Your task to perform on an android device: Open the calendar app, open the side menu, and click the "Day" option Image 0: 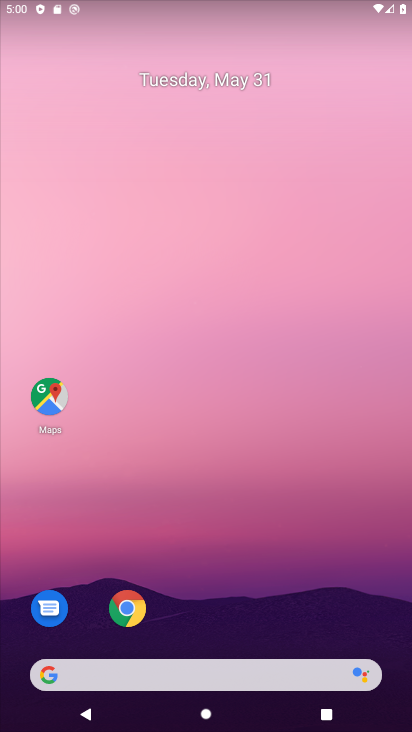
Step 0: drag from (270, 623) to (221, 44)
Your task to perform on an android device: Open the calendar app, open the side menu, and click the "Day" option Image 1: 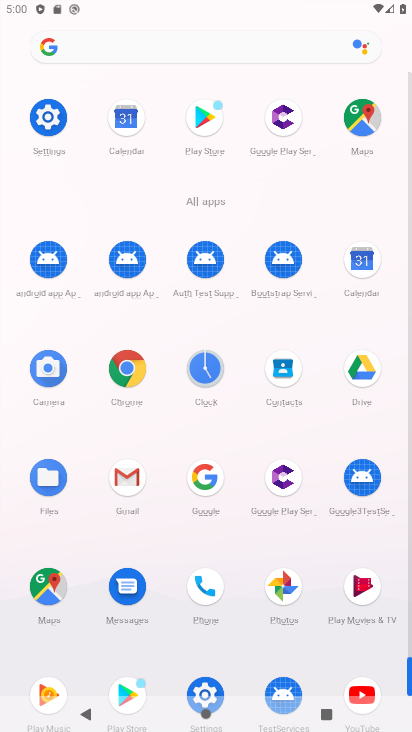
Step 1: click (361, 261)
Your task to perform on an android device: Open the calendar app, open the side menu, and click the "Day" option Image 2: 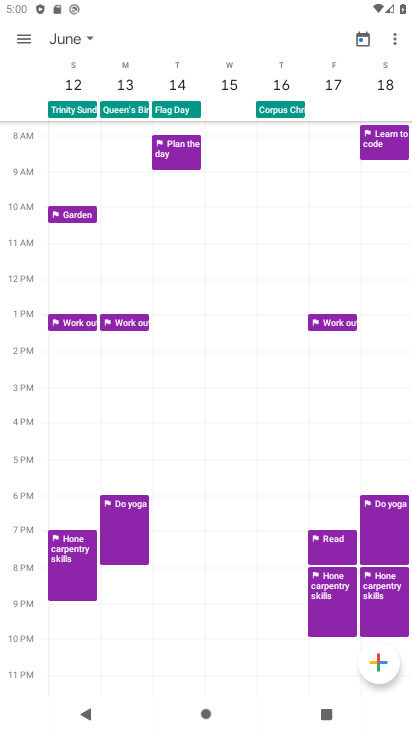
Step 2: click (23, 41)
Your task to perform on an android device: Open the calendar app, open the side menu, and click the "Day" option Image 3: 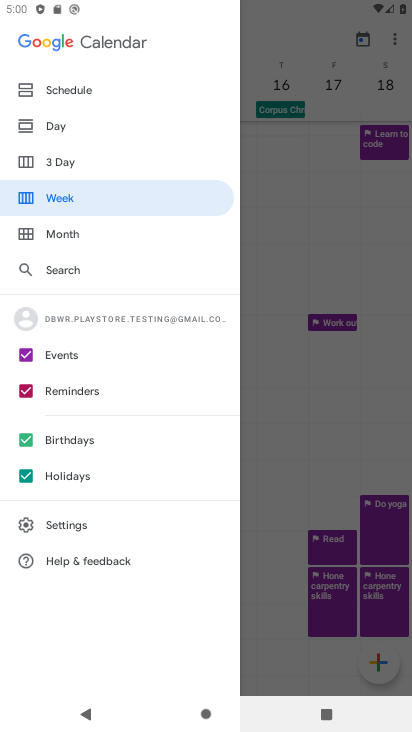
Step 3: click (50, 124)
Your task to perform on an android device: Open the calendar app, open the side menu, and click the "Day" option Image 4: 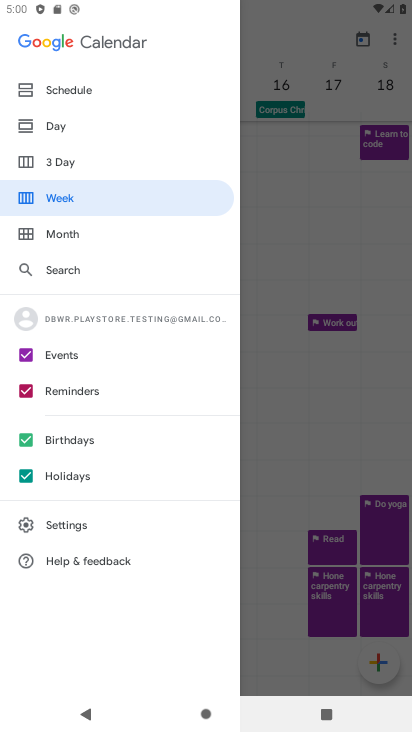
Step 4: click (50, 124)
Your task to perform on an android device: Open the calendar app, open the side menu, and click the "Day" option Image 5: 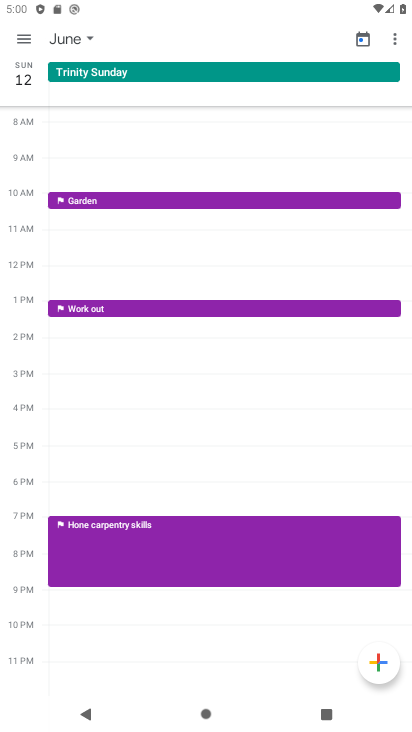
Step 5: task complete